Your task to perform on an android device: Is it going to rain today? Image 0: 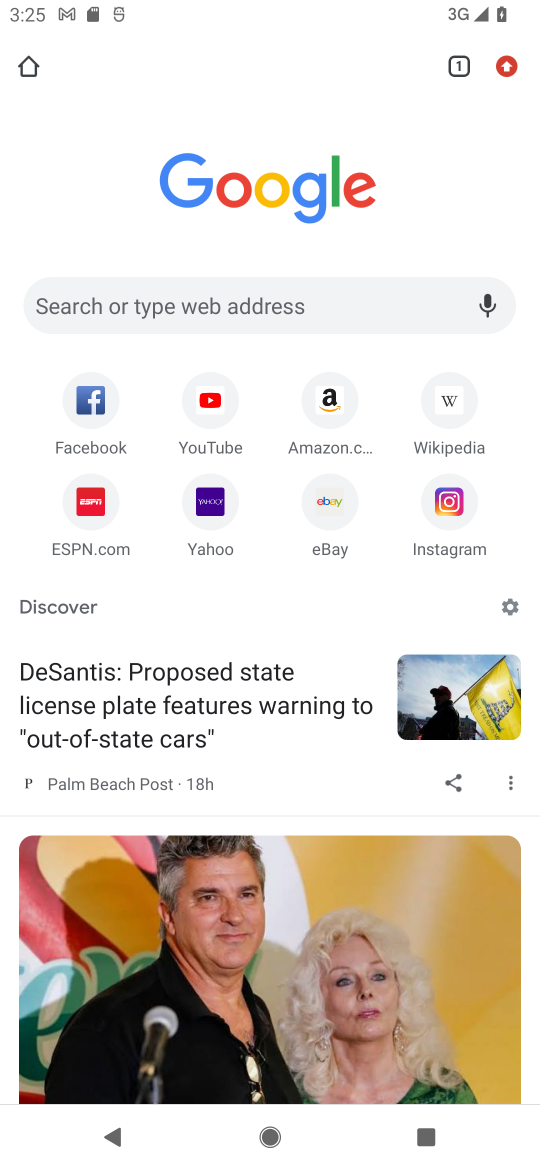
Step 0: press home button
Your task to perform on an android device: Is it going to rain today? Image 1: 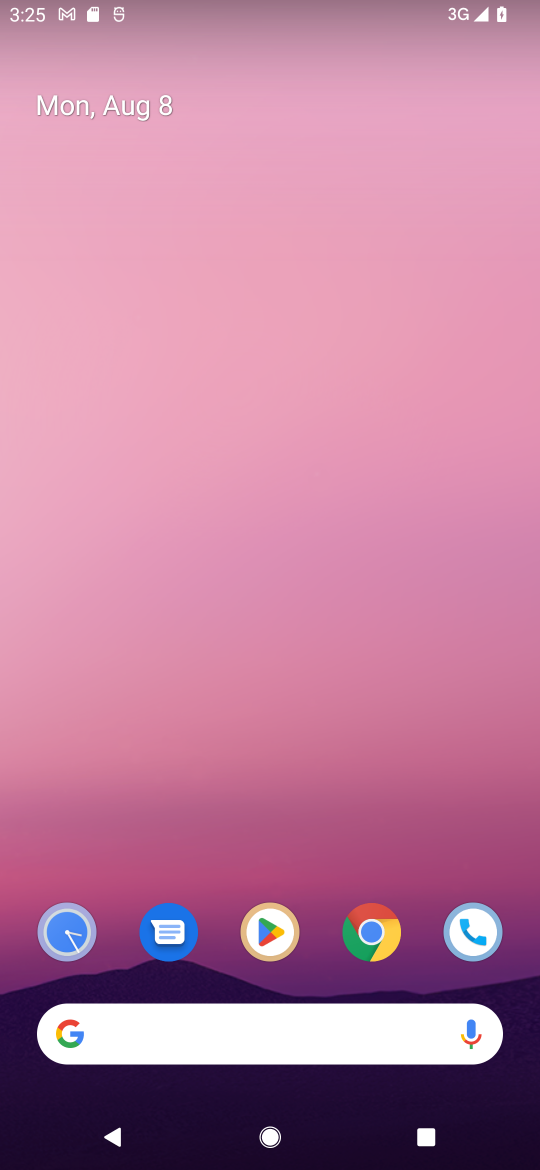
Step 1: drag from (249, 532) to (441, 51)
Your task to perform on an android device: Is it going to rain today? Image 2: 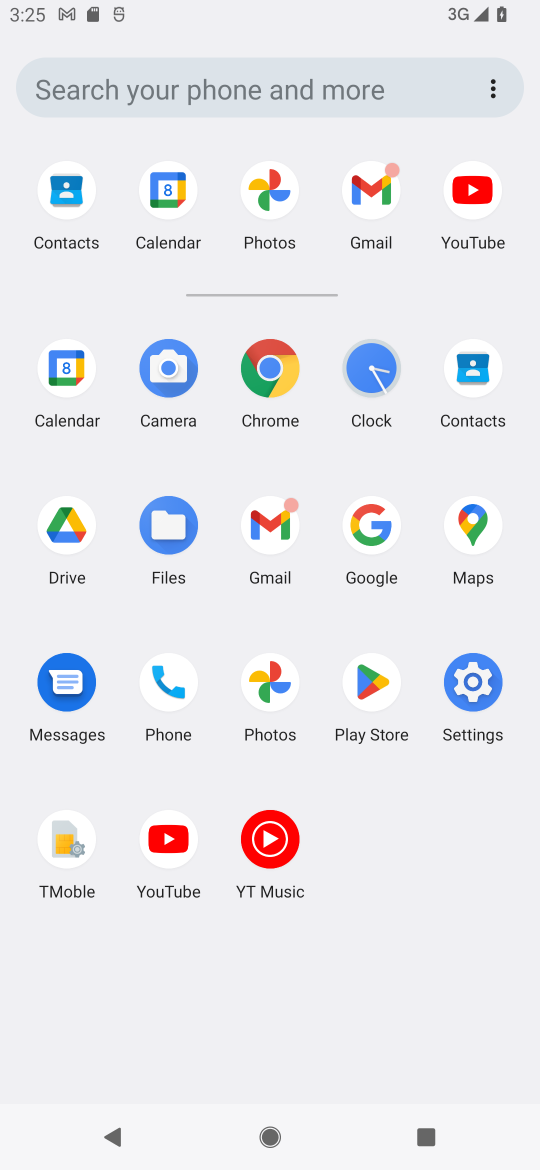
Step 2: click (393, 551)
Your task to perform on an android device: Is it going to rain today? Image 3: 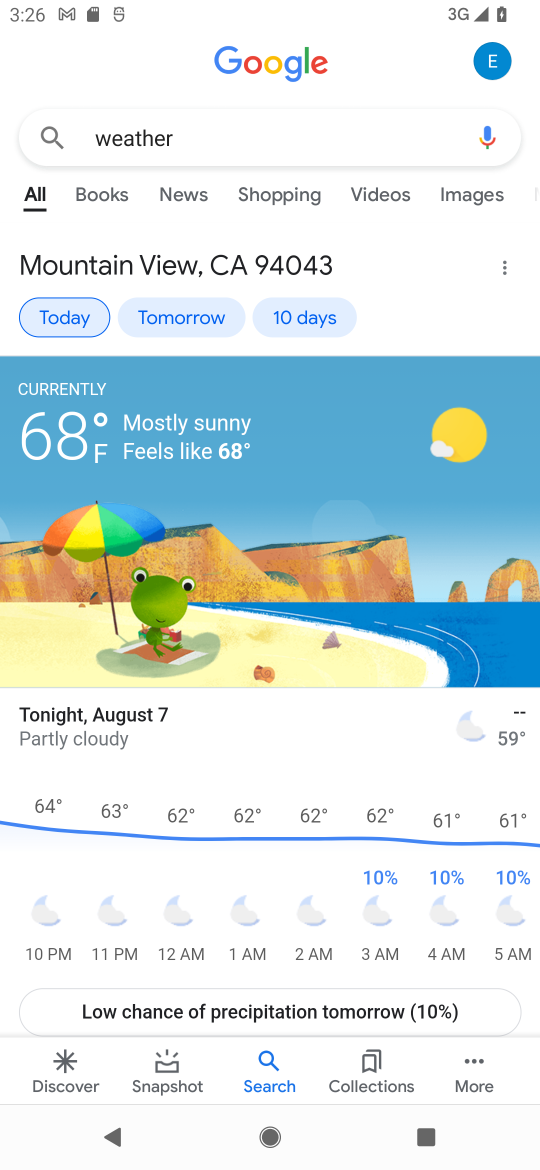
Step 3: task complete